Your task to perform on an android device: When is my next meeting? Image 0: 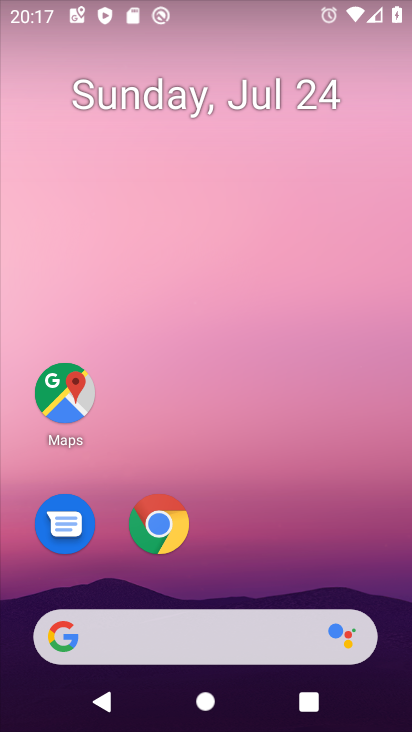
Step 0: drag from (278, 579) to (281, 13)
Your task to perform on an android device: When is my next meeting? Image 1: 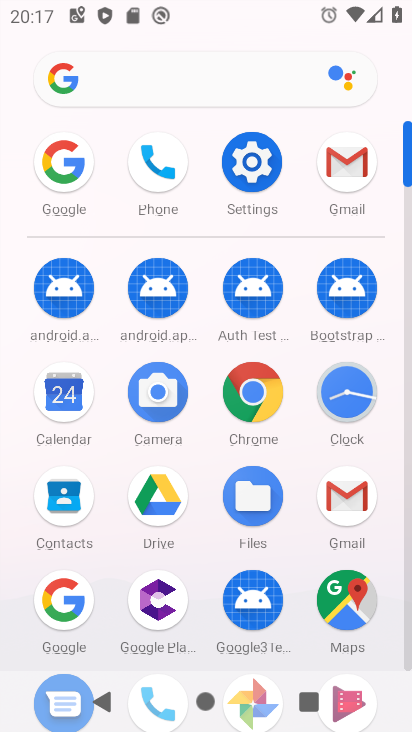
Step 1: click (70, 392)
Your task to perform on an android device: When is my next meeting? Image 2: 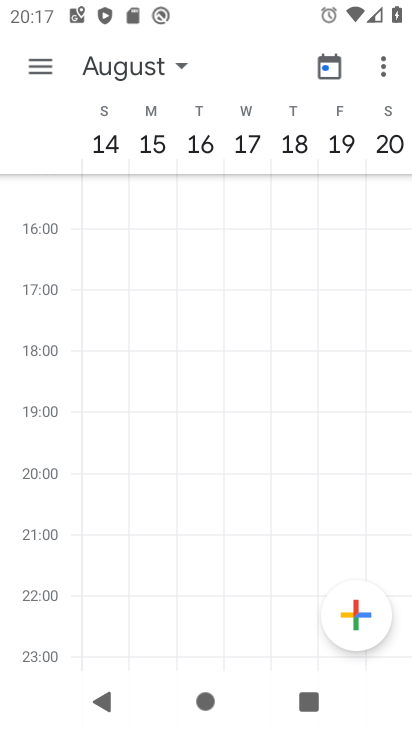
Step 2: drag from (117, 248) to (410, 263)
Your task to perform on an android device: When is my next meeting? Image 3: 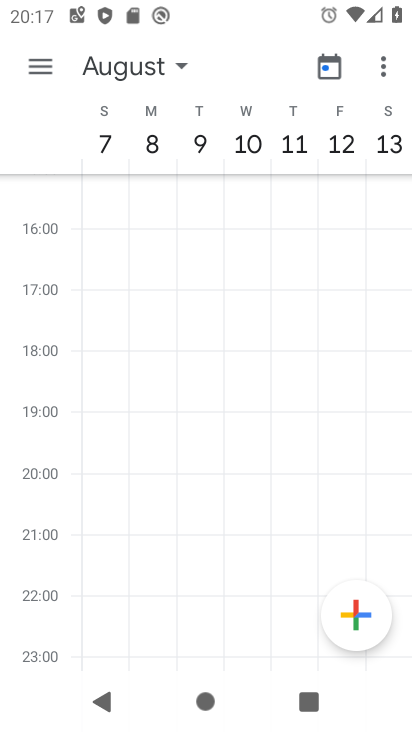
Step 3: drag from (93, 250) to (407, 298)
Your task to perform on an android device: When is my next meeting? Image 4: 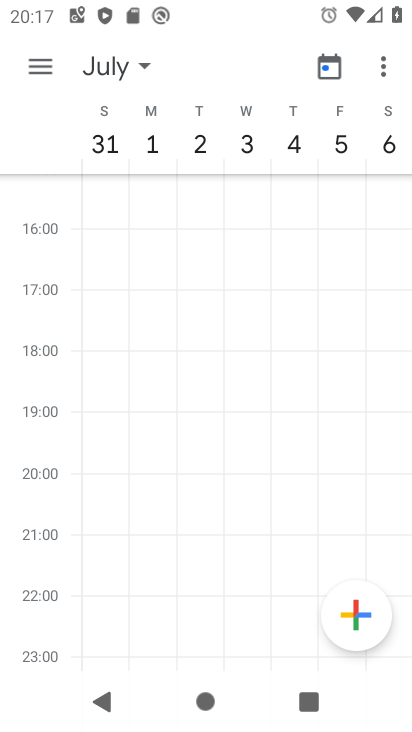
Step 4: drag from (100, 242) to (398, 253)
Your task to perform on an android device: When is my next meeting? Image 5: 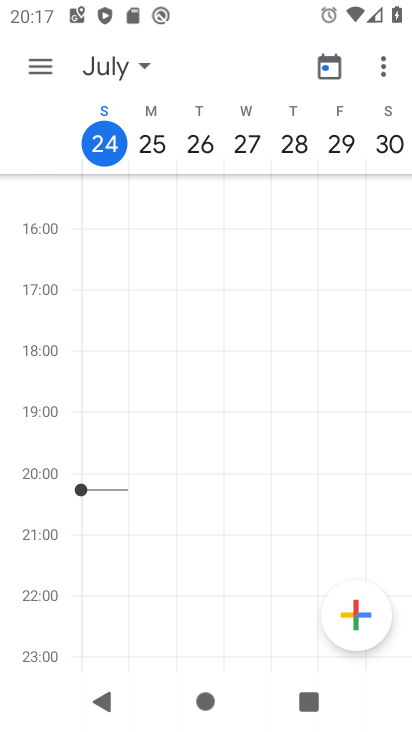
Step 5: click (107, 147)
Your task to perform on an android device: When is my next meeting? Image 6: 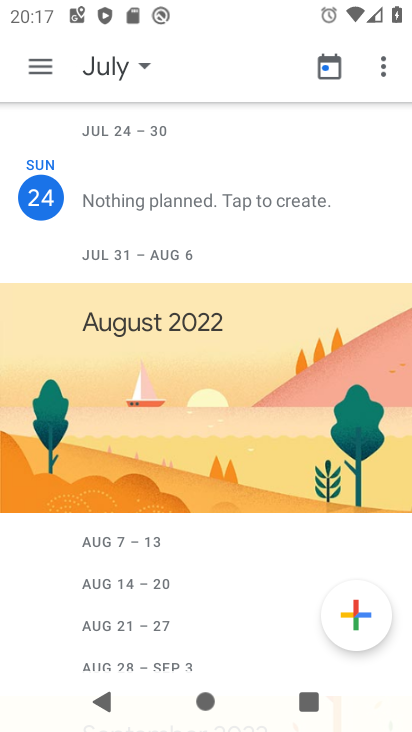
Step 6: task complete